Your task to perform on an android device: turn off smart reply in the gmail app Image 0: 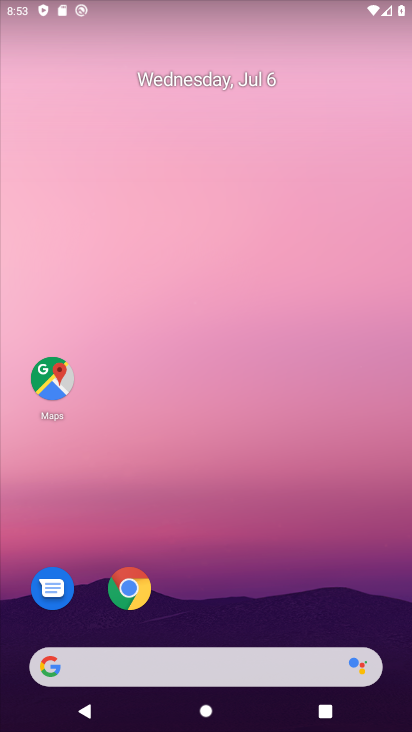
Step 0: drag from (171, 607) to (229, 67)
Your task to perform on an android device: turn off smart reply in the gmail app Image 1: 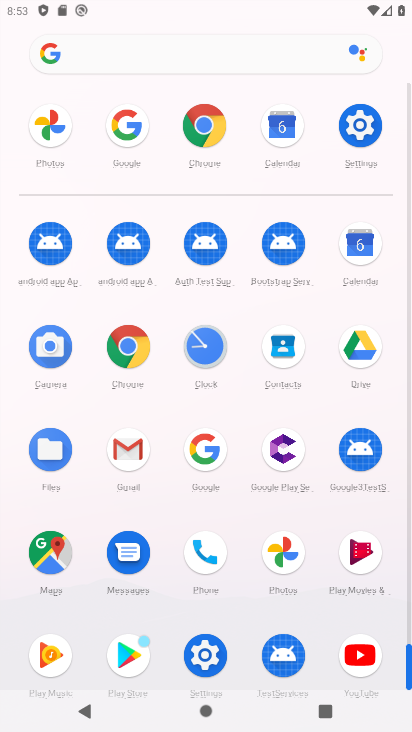
Step 1: click (135, 447)
Your task to perform on an android device: turn off smart reply in the gmail app Image 2: 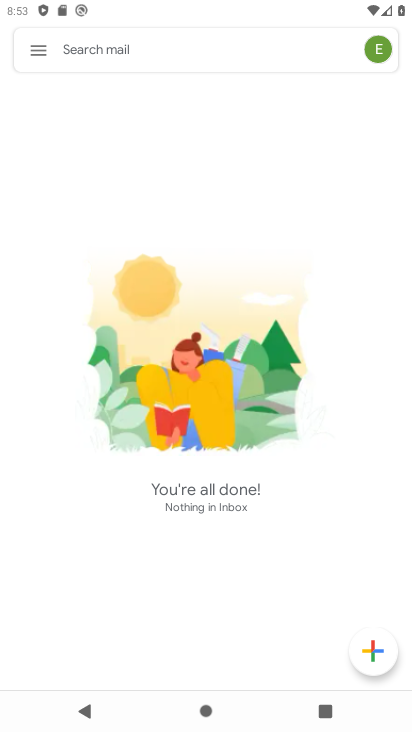
Step 2: click (34, 45)
Your task to perform on an android device: turn off smart reply in the gmail app Image 3: 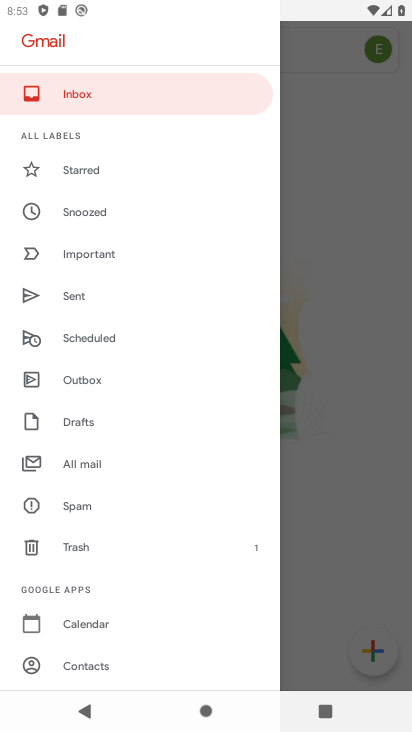
Step 3: drag from (209, 552) to (225, 324)
Your task to perform on an android device: turn off smart reply in the gmail app Image 4: 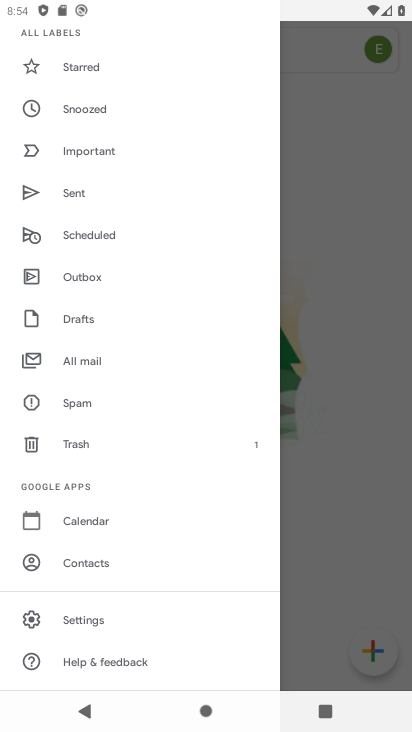
Step 4: click (72, 626)
Your task to perform on an android device: turn off smart reply in the gmail app Image 5: 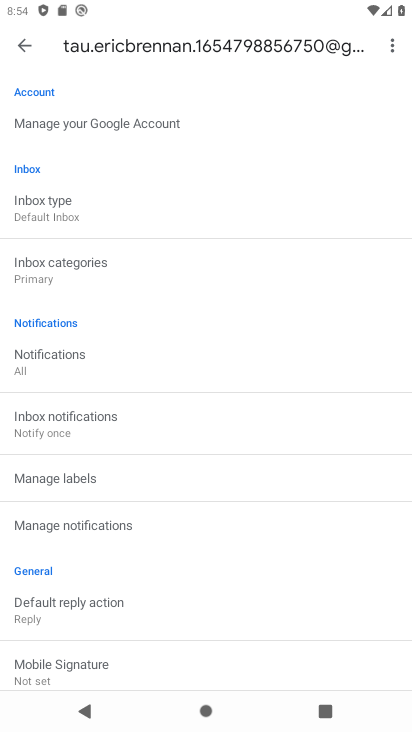
Step 5: drag from (137, 637) to (247, 209)
Your task to perform on an android device: turn off smart reply in the gmail app Image 6: 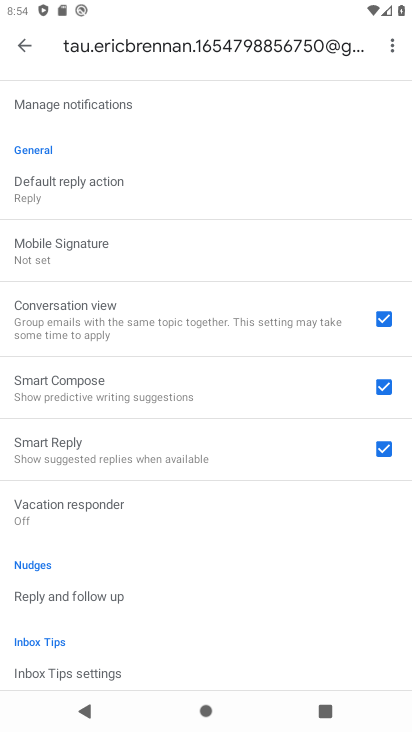
Step 6: click (389, 445)
Your task to perform on an android device: turn off smart reply in the gmail app Image 7: 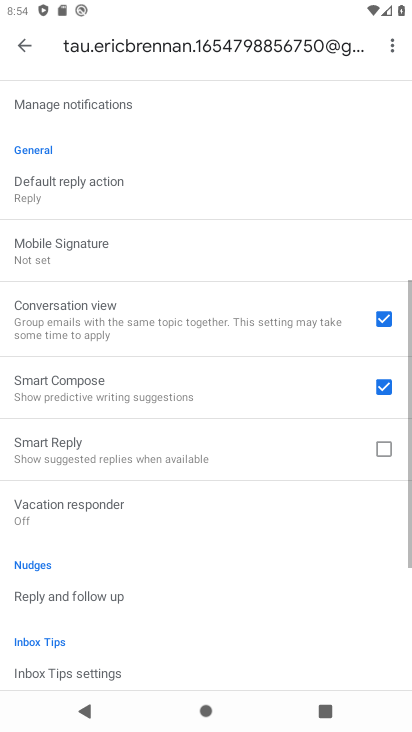
Step 7: task complete